Your task to perform on an android device: Open Chrome and go to the settings page Image 0: 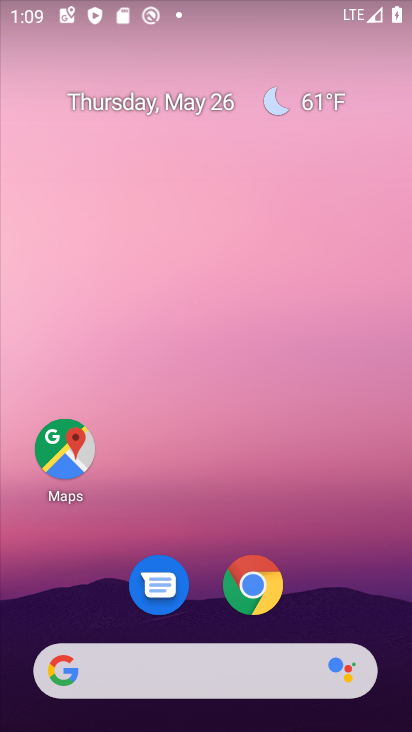
Step 0: click (263, 563)
Your task to perform on an android device: Open Chrome and go to the settings page Image 1: 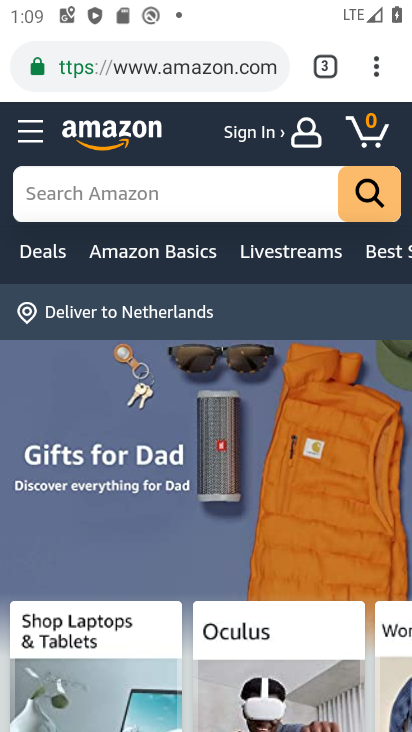
Step 1: click (375, 71)
Your task to perform on an android device: Open Chrome and go to the settings page Image 2: 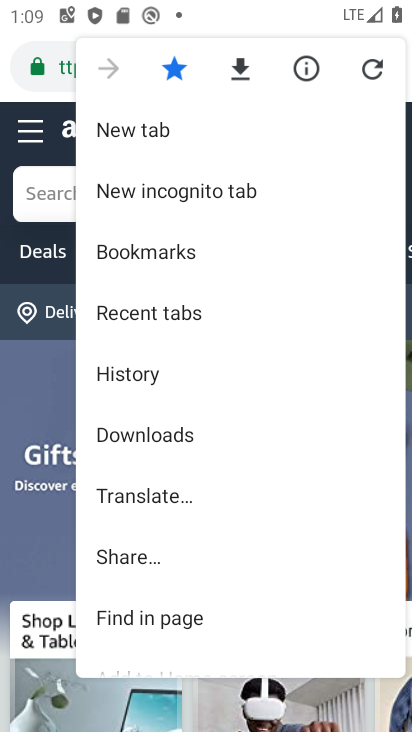
Step 2: drag from (227, 443) to (239, 135)
Your task to perform on an android device: Open Chrome and go to the settings page Image 3: 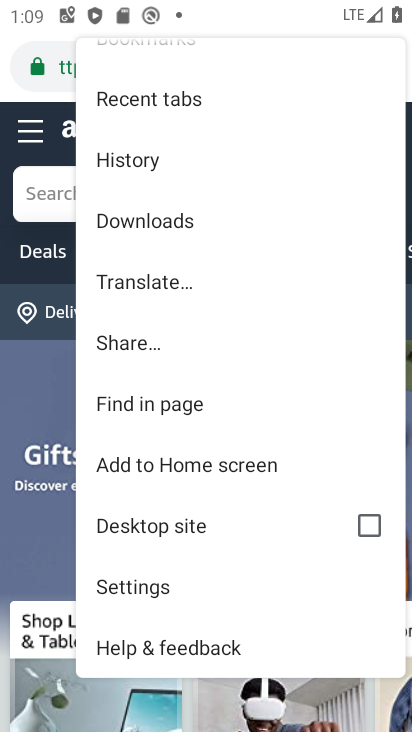
Step 3: click (137, 578)
Your task to perform on an android device: Open Chrome and go to the settings page Image 4: 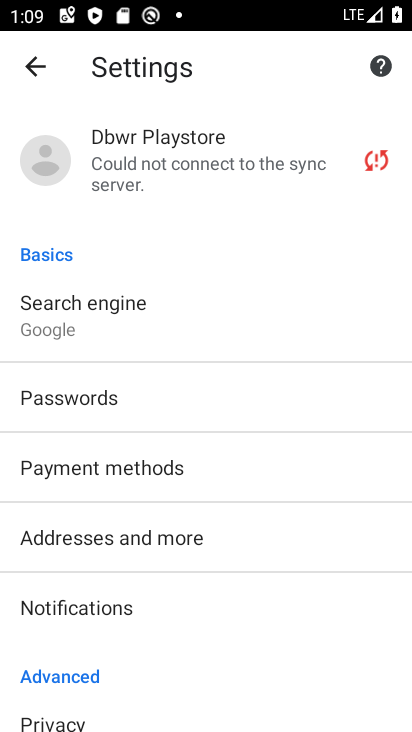
Step 4: task complete